Your task to perform on an android device: open app "Adobe Acrobat Reader: Edit PDF" (install if not already installed) Image 0: 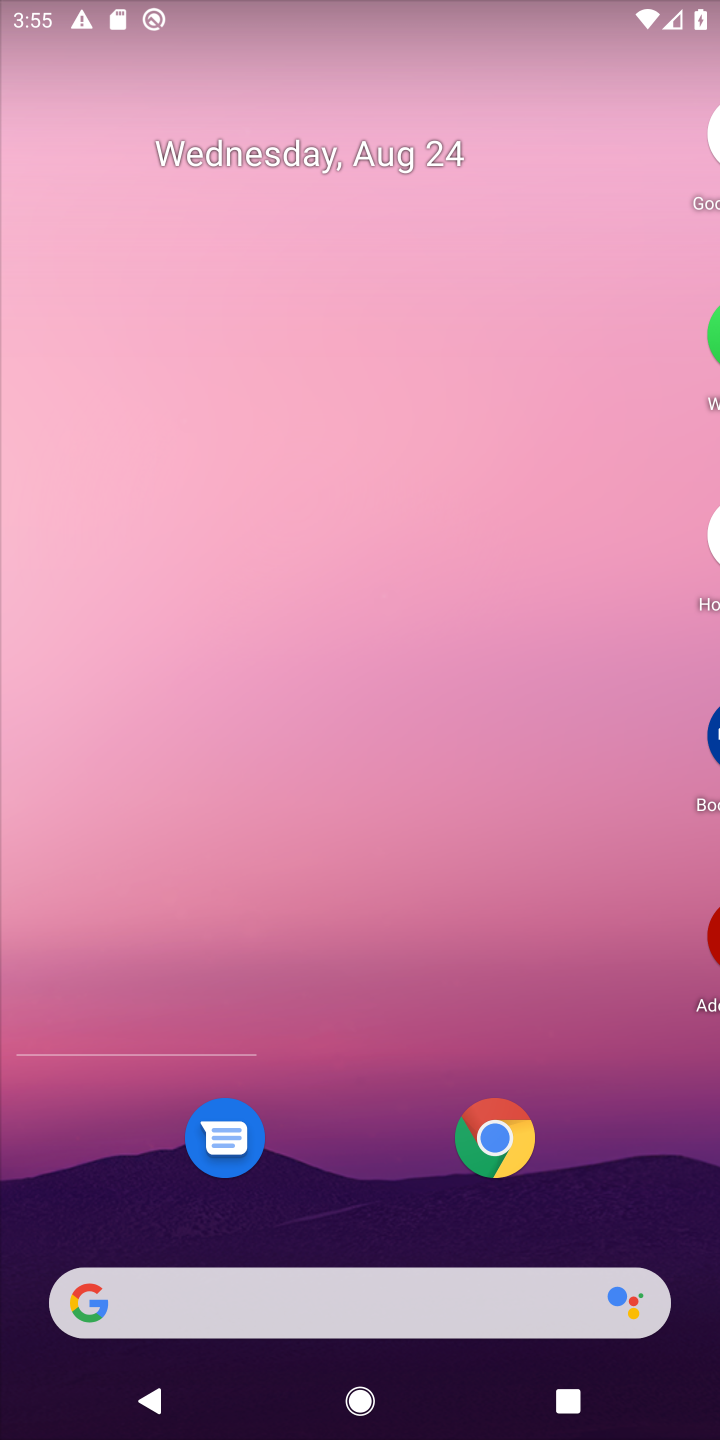
Step 0: press home button
Your task to perform on an android device: open app "Adobe Acrobat Reader: Edit PDF" (install if not already installed) Image 1: 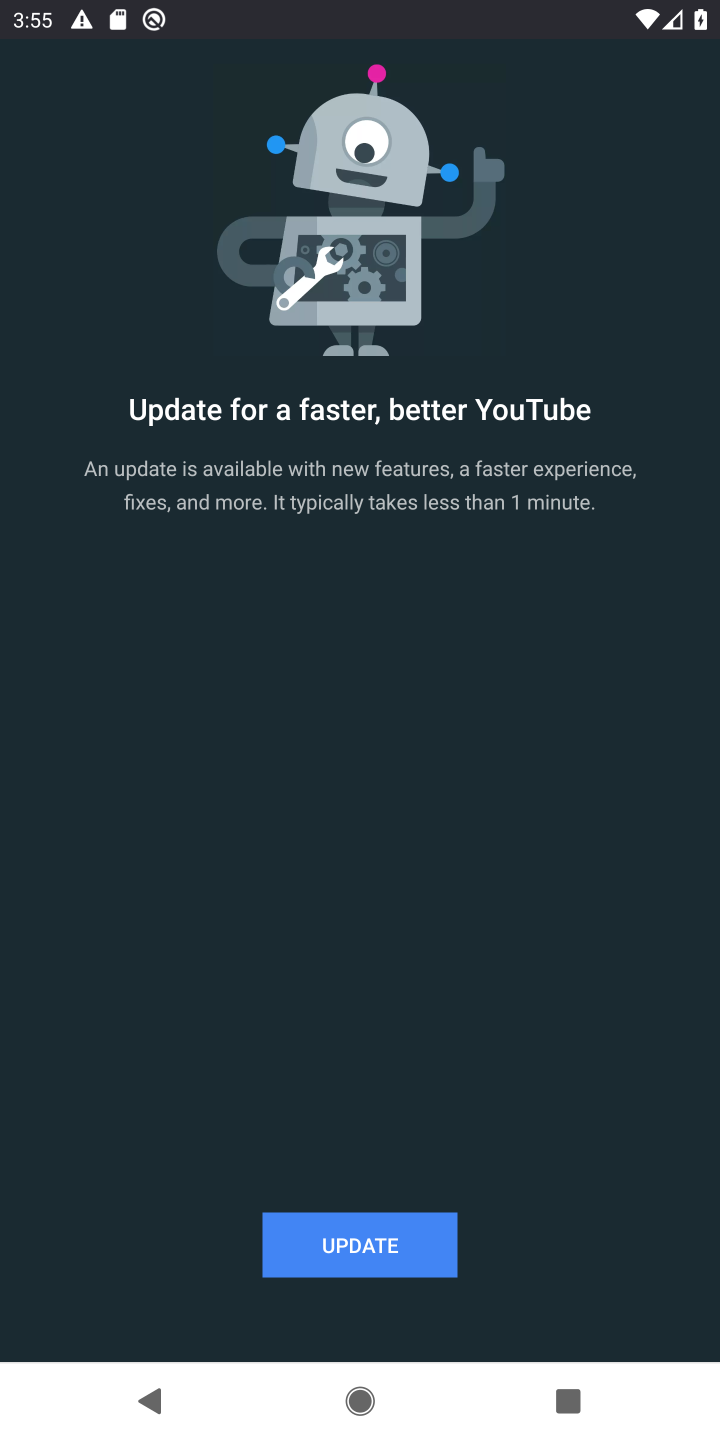
Step 1: press home button
Your task to perform on an android device: open app "Adobe Acrobat Reader: Edit PDF" (install if not already installed) Image 2: 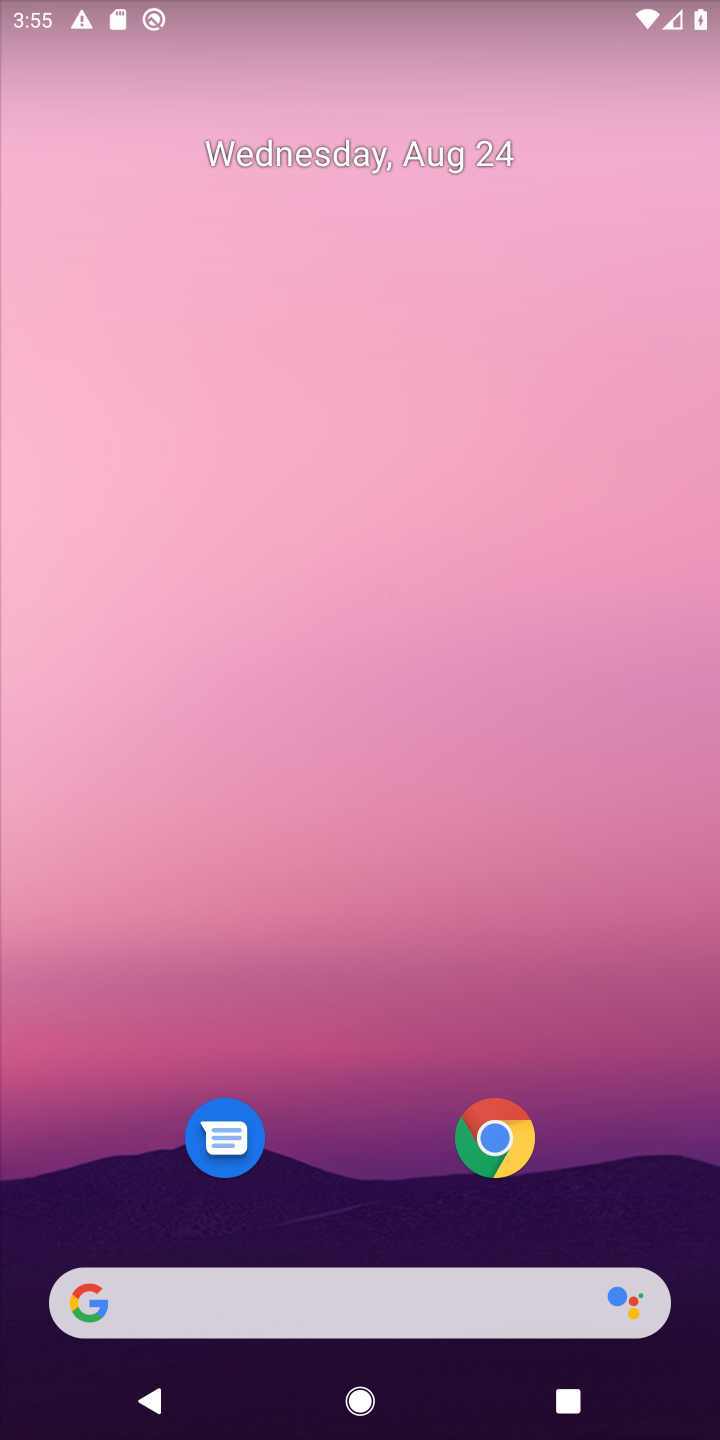
Step 2: press home button
Your task to perform on an android device: open app "Adobe Acrobat Reader: Edit PDF" (install if not already installed) Image 3: 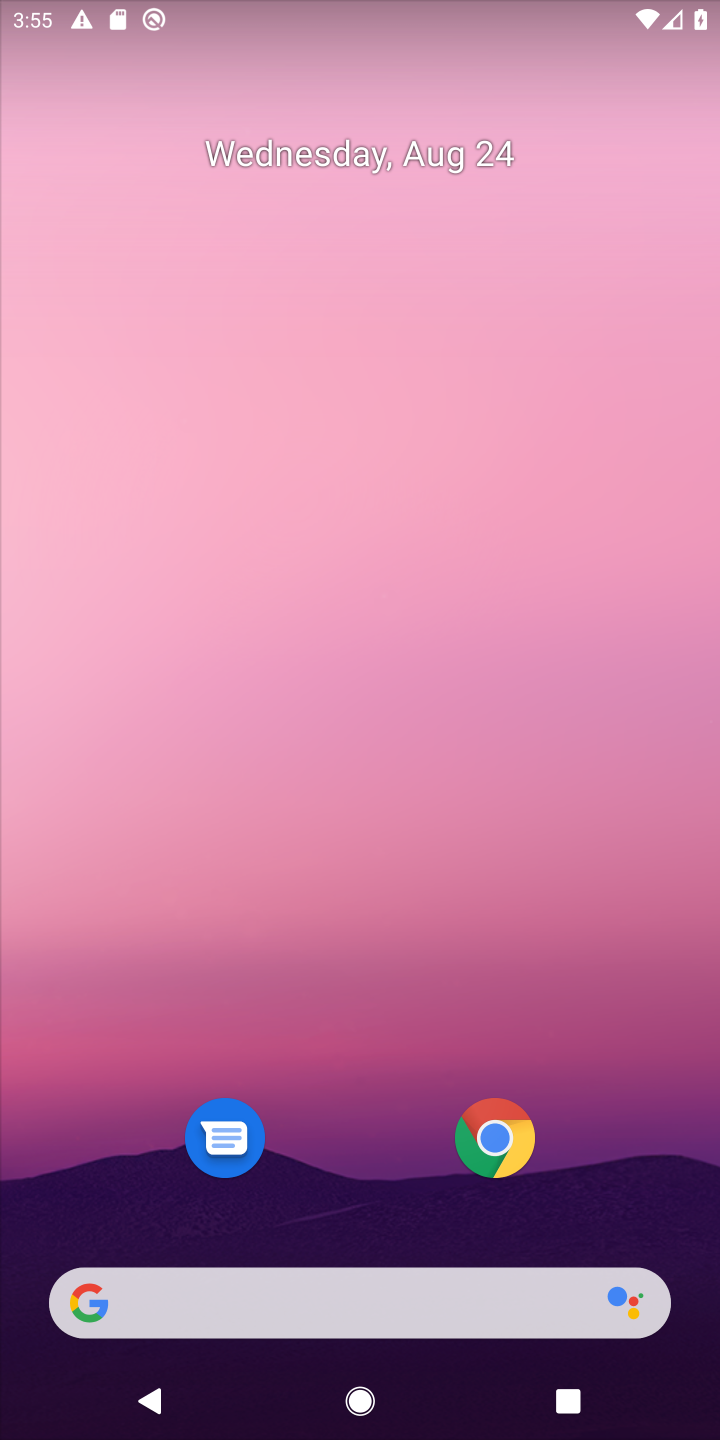
Step 3: drag from (355, 1182) to (355, 224)
Your task to perform on an android device: open app "Adobe Acrobat Reader: Edit PDF" (install if not already installed) Image 4: 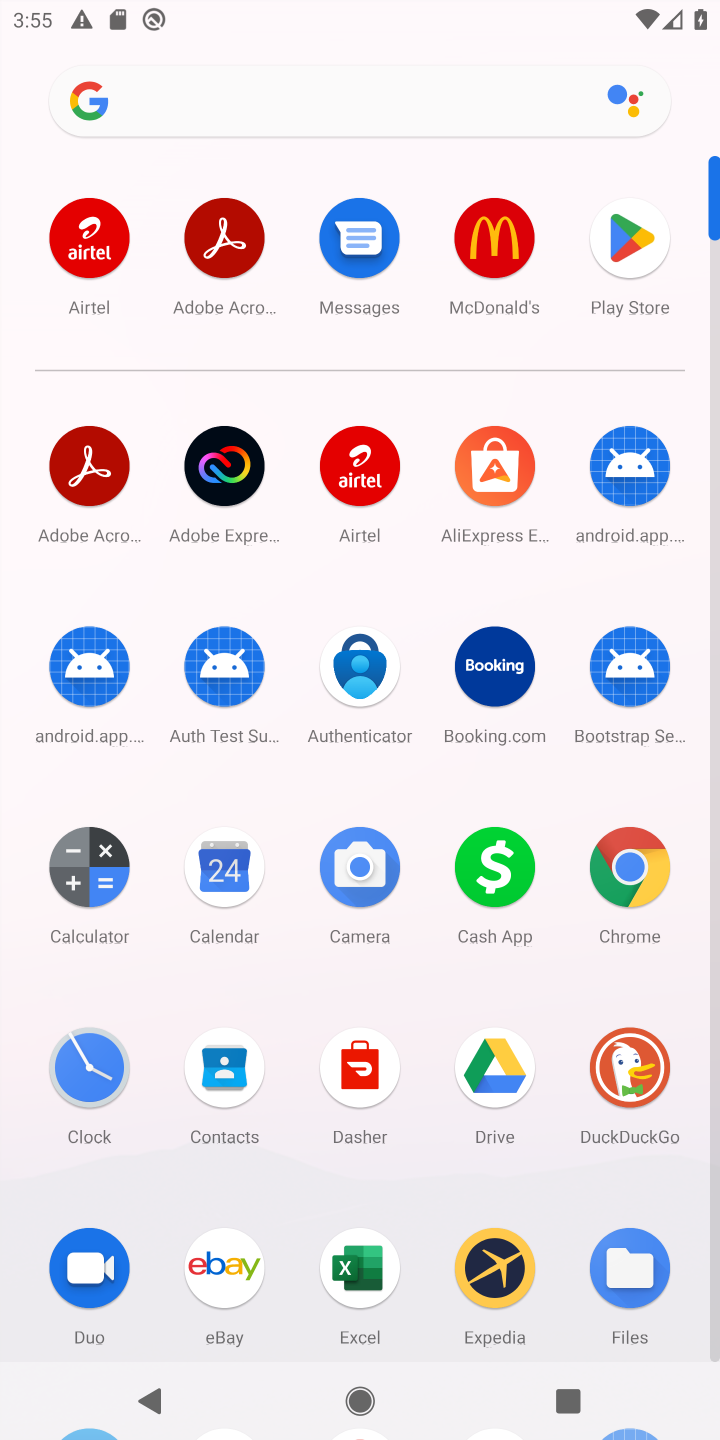
Step 4: click (81, 500)
Your task to perform on an android device: open app "Adobe Acrobat Reader: Edit PDF" (install if not already installed) Image 5: 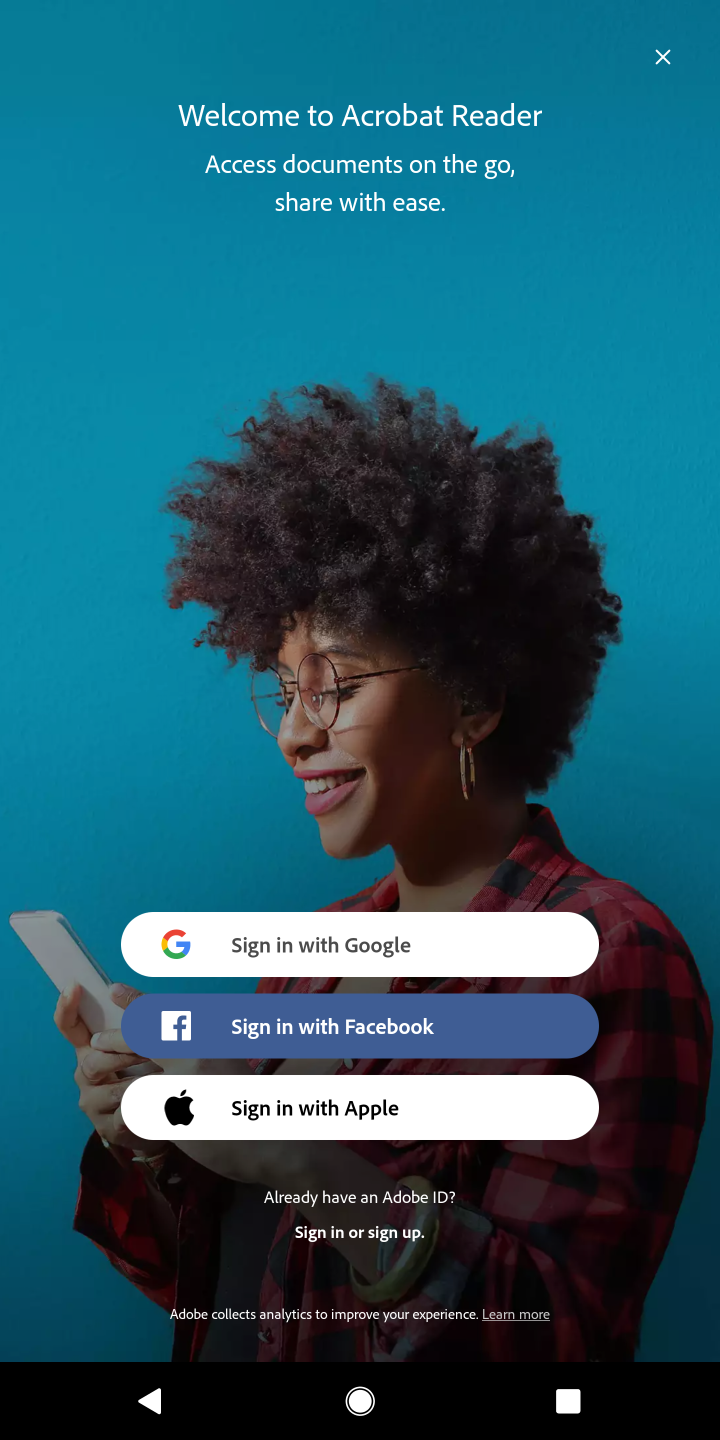
Step 5: task complete